Your task to perform on an android device: Go to calendar. Show me events next week Image 0: 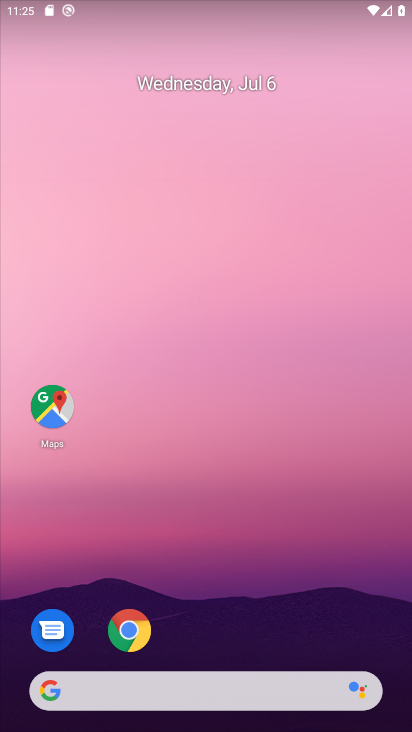
Step 0: drag from (239, 590) to (199, 2)
Your task to perform on an android device: Go to calendar. Show me events next week Image 1: 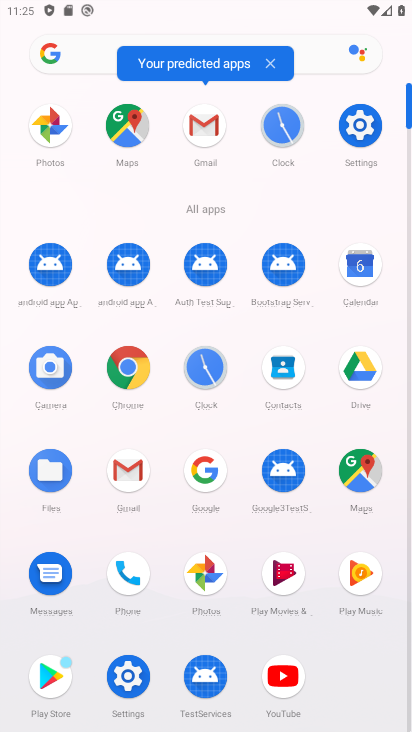
Step 1: click (365, 254)
Your task to perform on an android device: Go to calendar. Show me events next week Image 2: 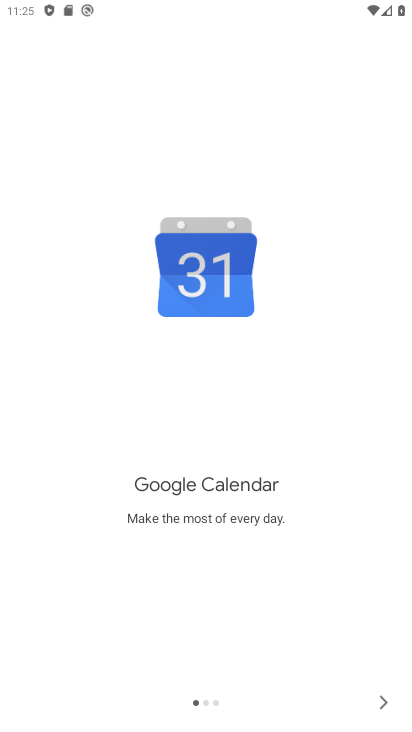
Step 2: click (384, 700)
Your task to perform on an android device: Go to calendar. Show me events next week Image 3: 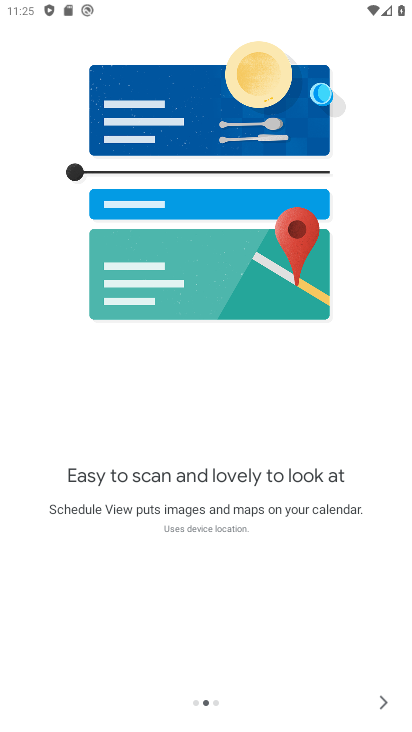
Step 3: click (384, 700)
Your task to perform on an android device: Go to calendar. Show me events next week Image 4: 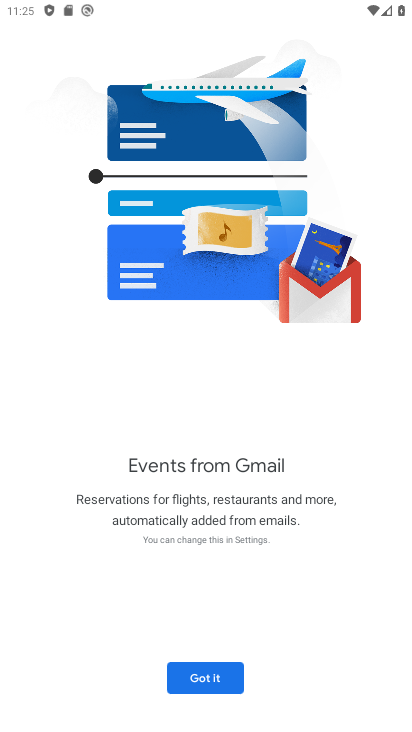
Step 4: click (203, 679)
Your task to perform on an android device: Go to calendar. Show me events next week Image 5: 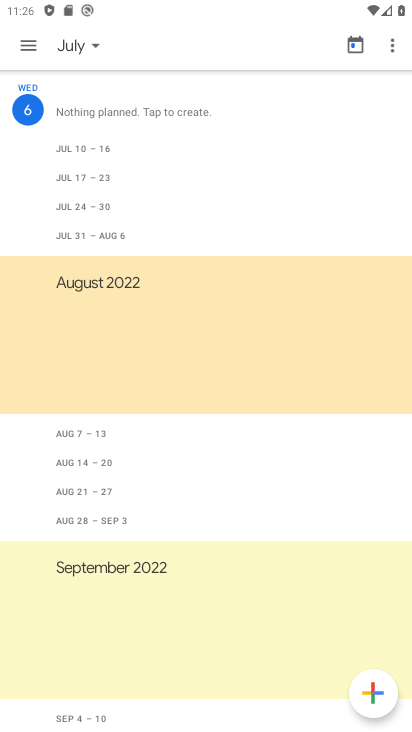
Step 5: click (31, 41)
Your task to perform on an android device: Go to calendar. Show me events next week Image 6: 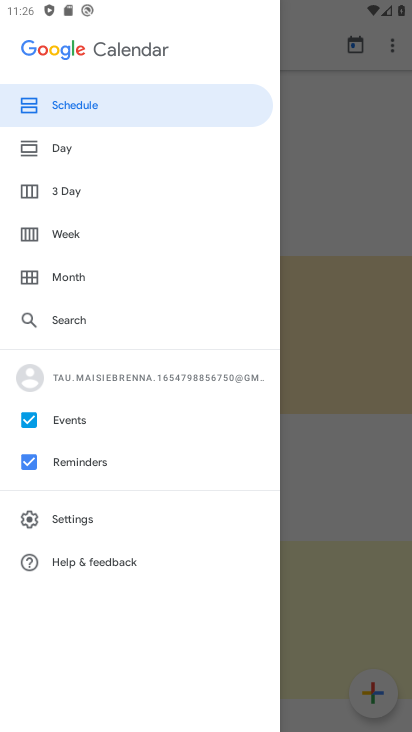
Step 6: click (32, 466)
Your task to perform on an android device: Go to calendar. Show me events next week Image 7: 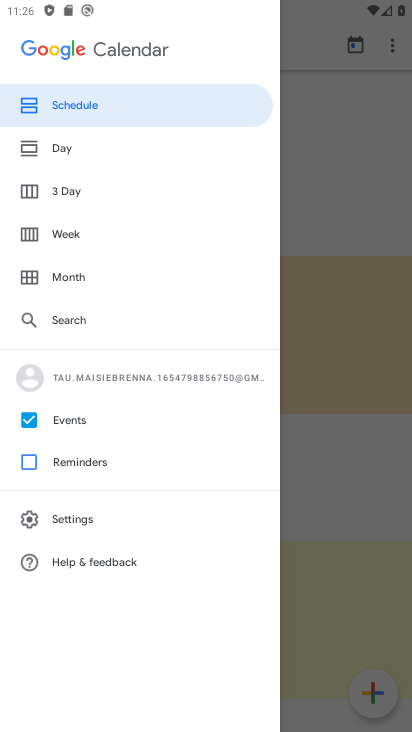
Step 7: drag from (156, 449) to (164, 183)
Your task to perform on an android device: Go to calendar. Show me events next week Image 8: 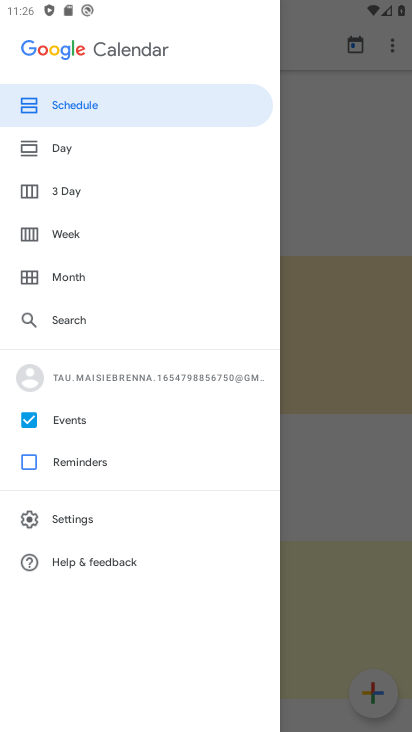
Step 8: drag from (69, 458) to (72, 211)
Your task to perform on an android device: Go to calendar. Show me events next week Image 9: 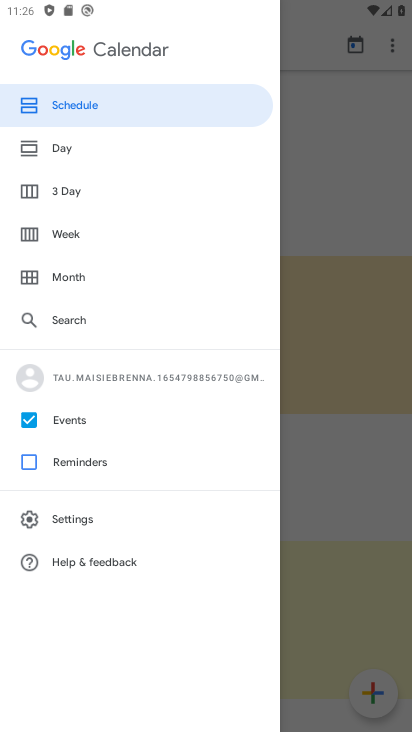
Step 9: drag from (92, 478) to (93, 182)
Your task to perform on an android device: Go to calendar. Show me events next week Image 10: 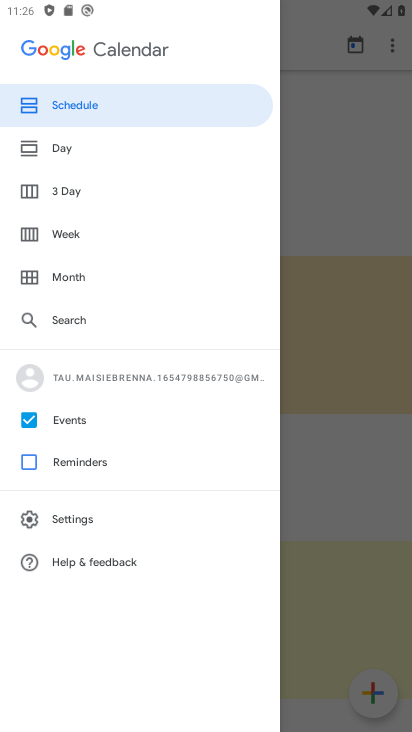
Step 10: click (59, 240)
Your task to perform on an android device: Go to calendar. Show me events next week Image 11: 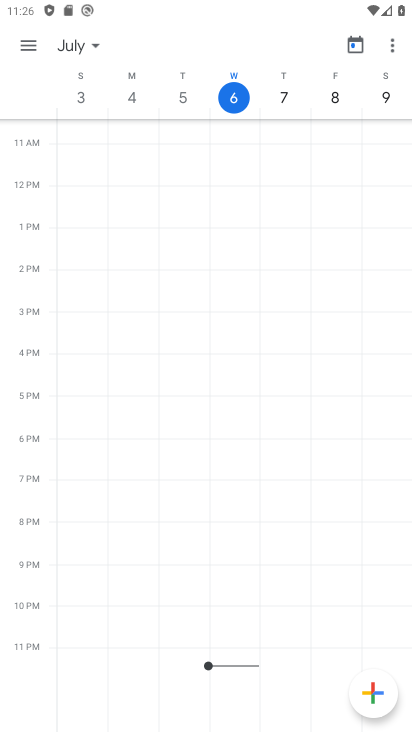
Step 11: task complete